Your task to perform on an android device: Open eBay Image 0: 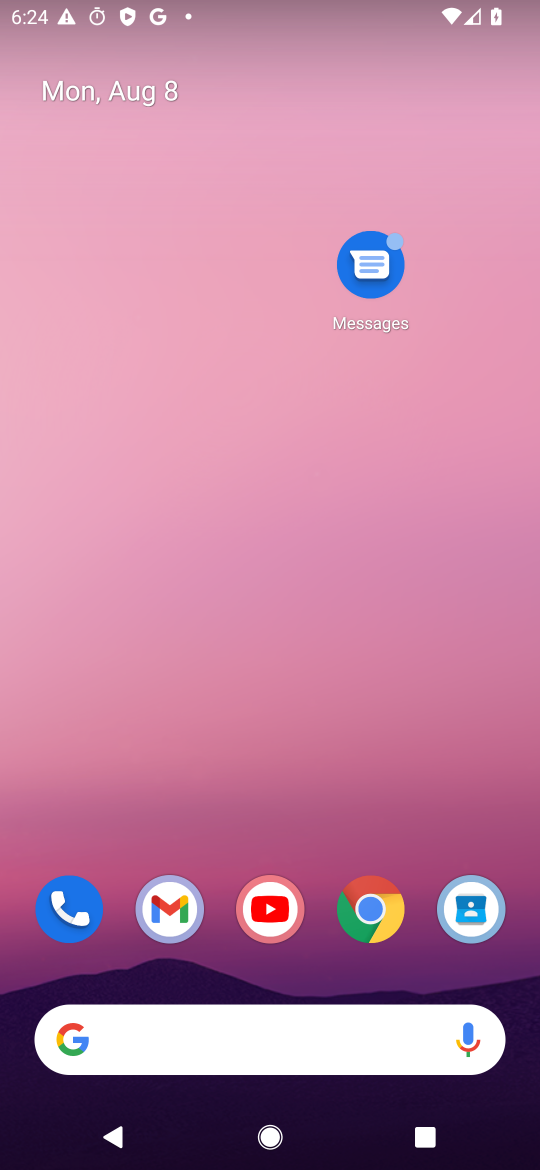
Step 0: click (384, 901)
Your task to perform on an android device: Open eBay Image 1: 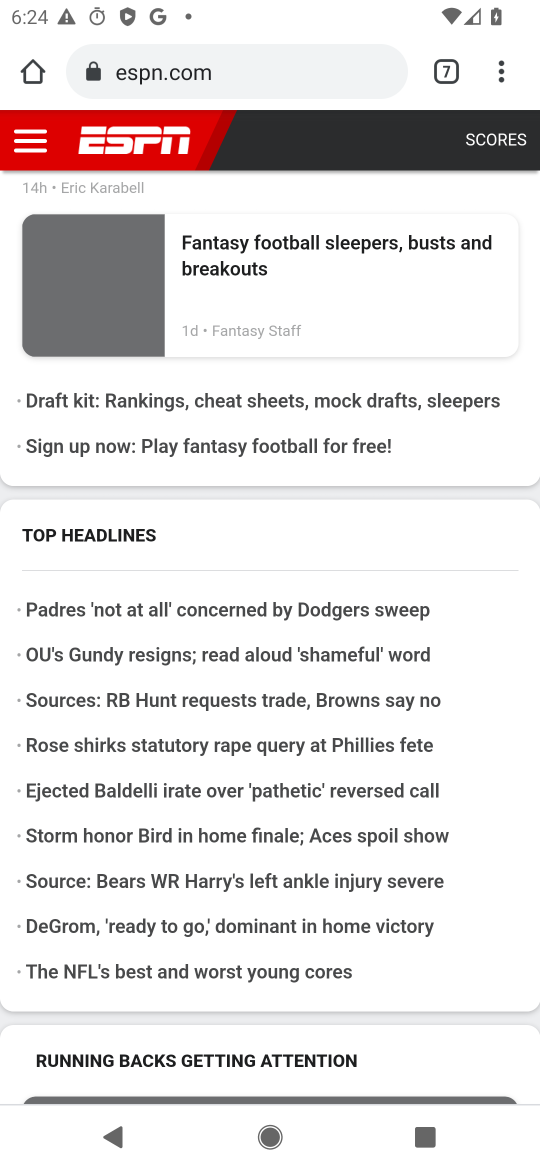
Step 1: drag from (503, 75) to (397, 208)
Your task to perform on an android device: Open eBay Image 2: 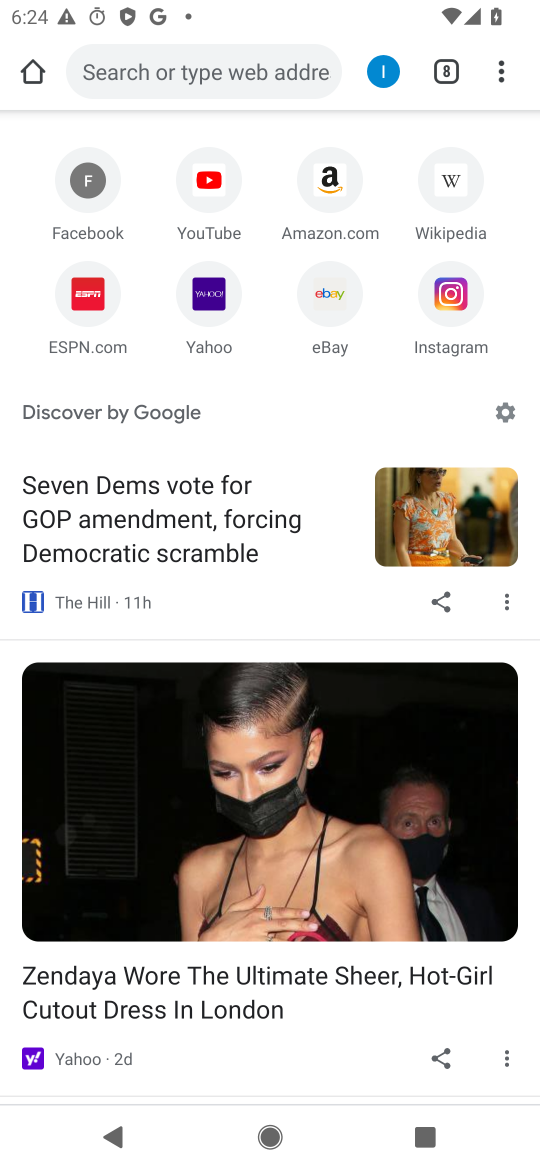
Step 2: click (335, 306)
Your task to perform on an android device: Open eBay Image 3: 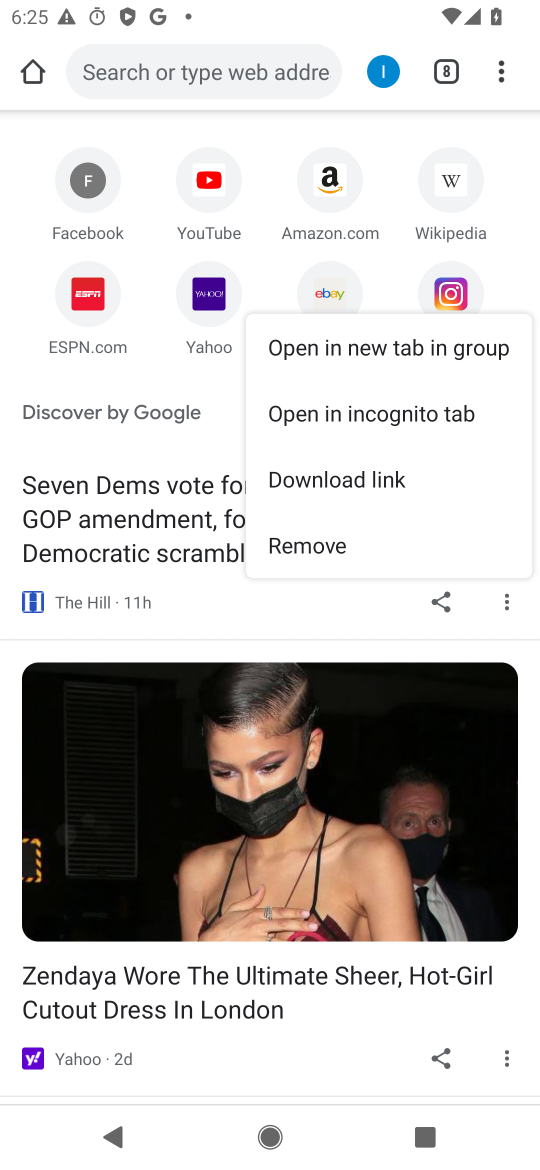
Step 3: click (334, 291)
Your task to perform on an android device: Open eBay Image 4: 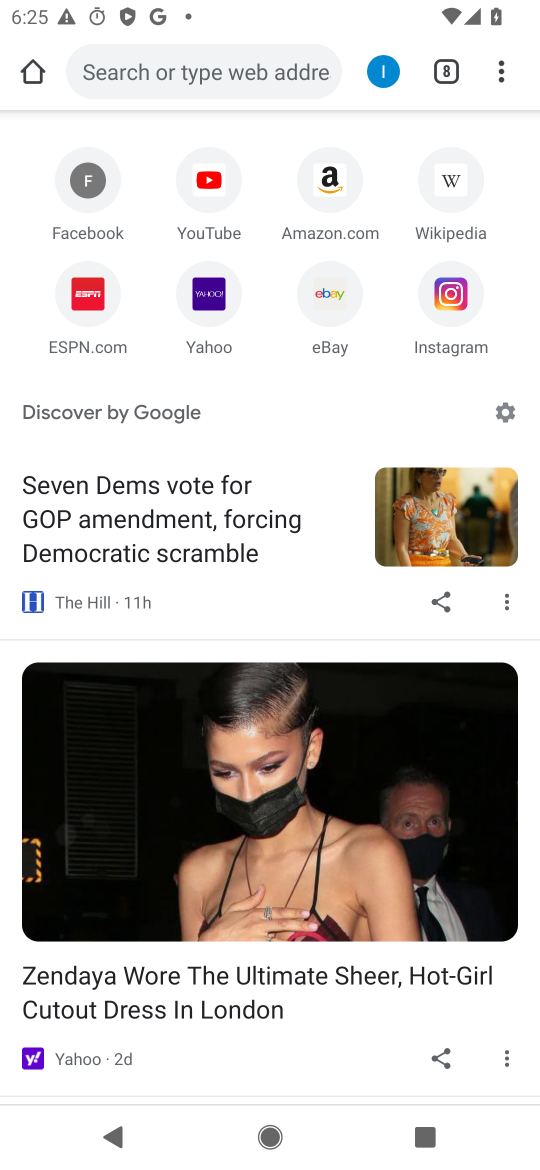
Step 4: click (330, 298)
Your task to perform on an android device: Open eBay Image 5: 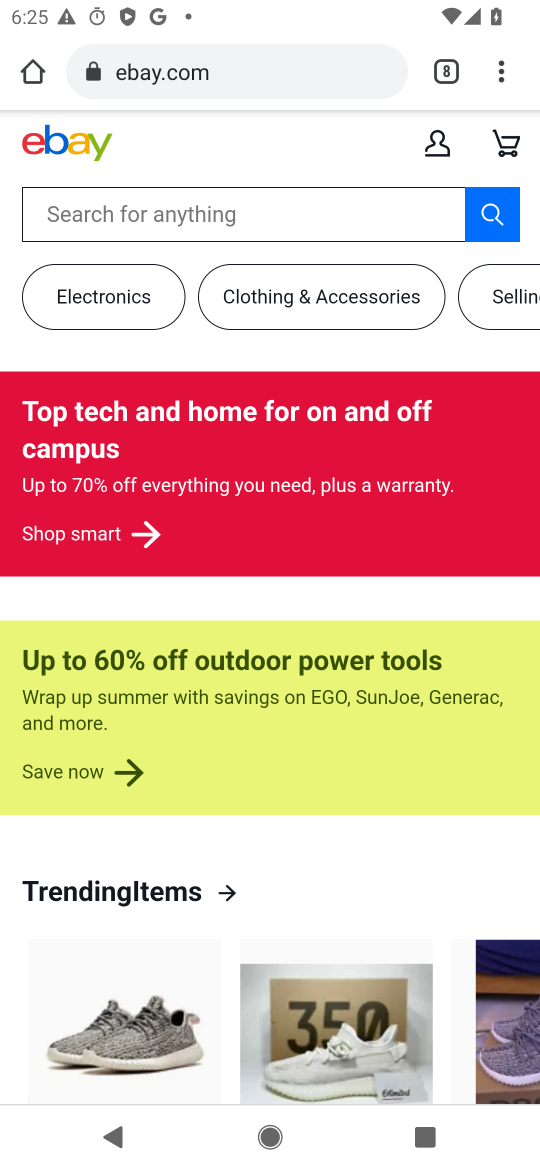
Step 5: task complete